Your task to perform on an android device: set the stopwatch Image 0: 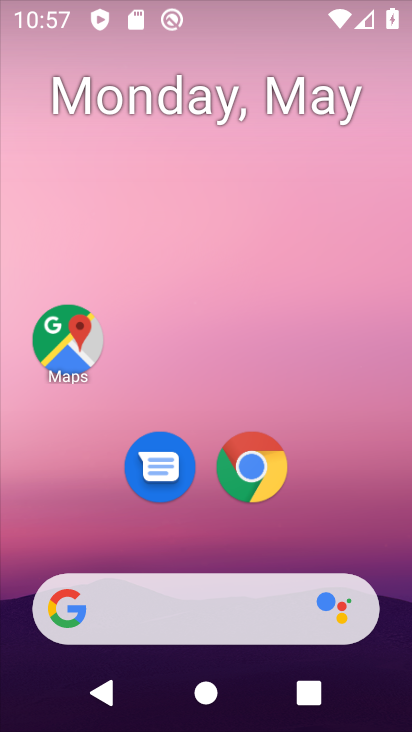
Step 0: click (242, 460)
Your task to perform on an android device: set the stopwatch Image 1: 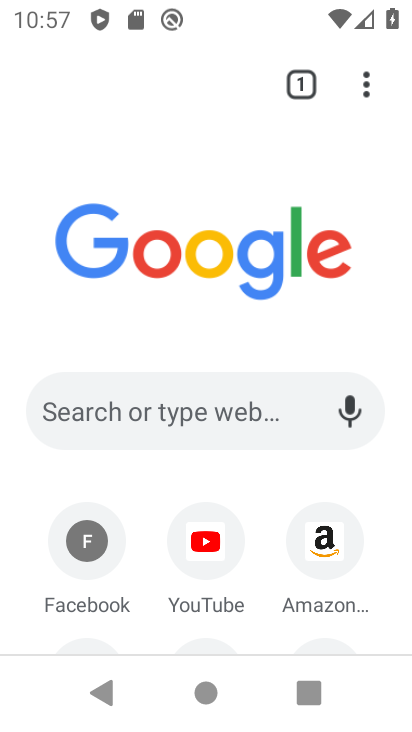
Step 1: press home button
Your task to perform on an android device: set the stopwatch Image 2: 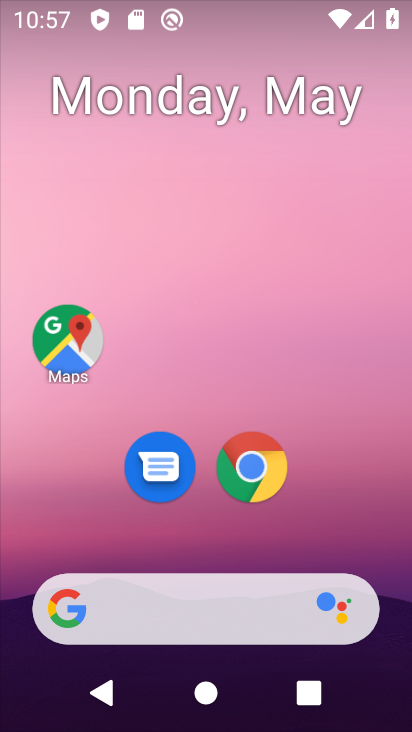
Step 2: click (391, 422)
Your task to perform on an android device: set the stopwatch Image 3: 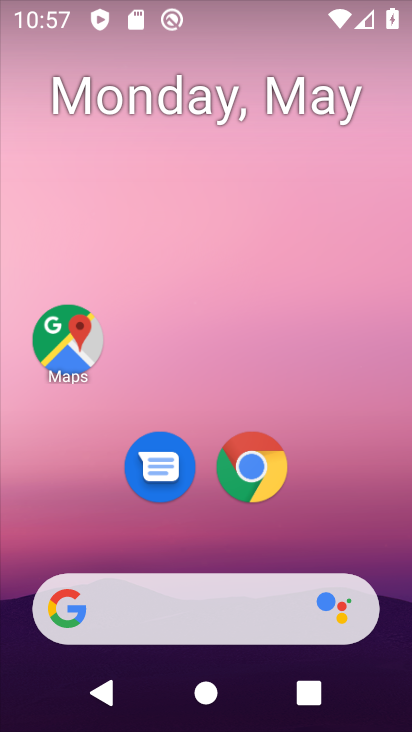
Step 3: click (391, 422)
Your task to perform on an android device: set the stopwatch Image 4: 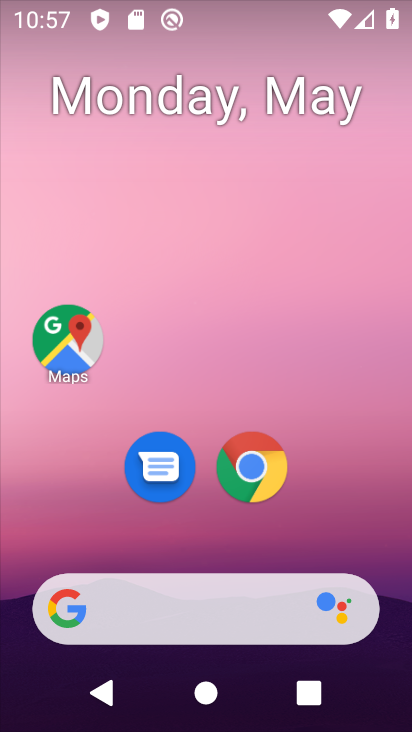
Step 4: drag from (346, 522) to (341, 98)
Your task to perform on an android device: set the stopwatch Image 5: 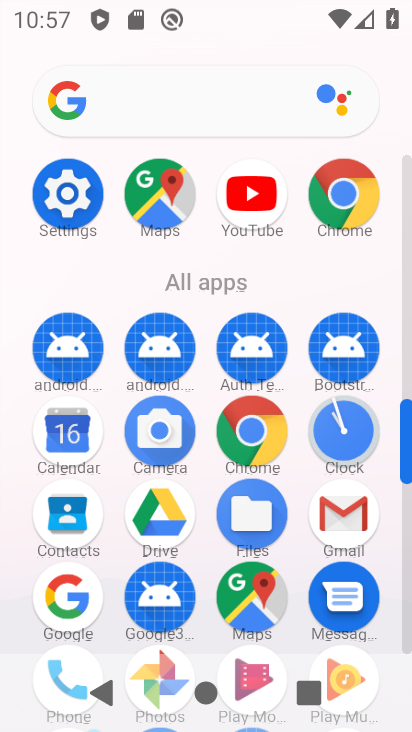
Step 5: click (357, 445)
Your task to perform on an android device: set the stopwatch Image 6: 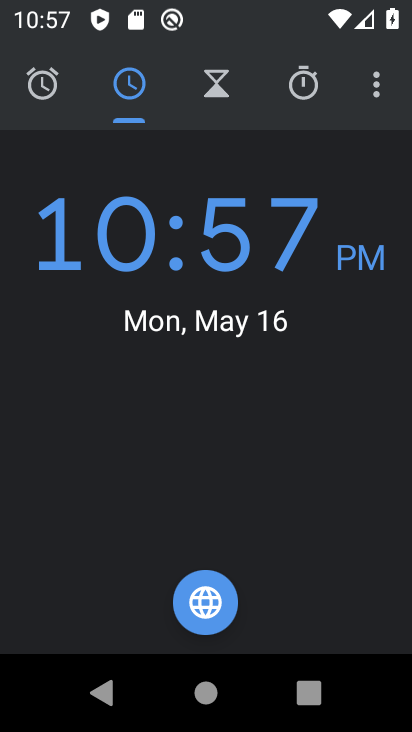
Step 6: click (289, 68)
Your task to perform on an android device: set the stopwatch Image 7: 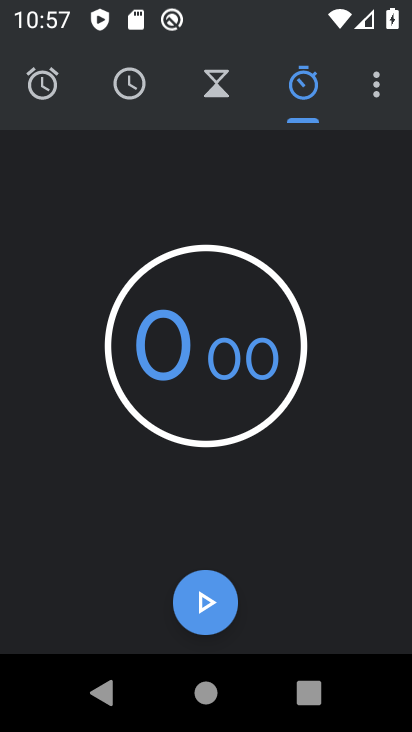
Step 7: task complete